Your task to perform on an android device: What is the news today? Image 0: 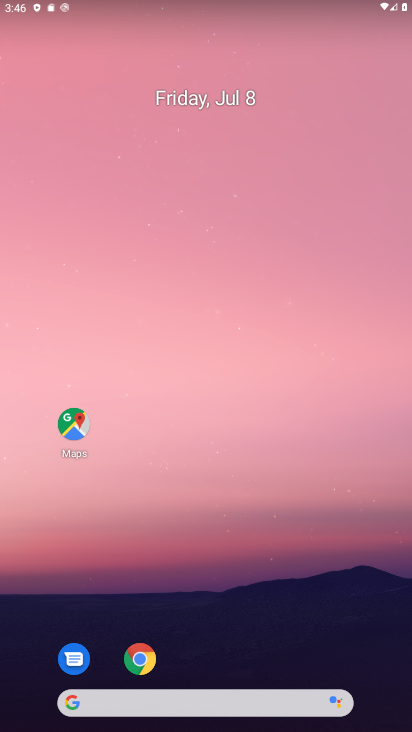
Step 0: click (139, 705)
Your task to perform on an android device: What is the news today? Image 1: 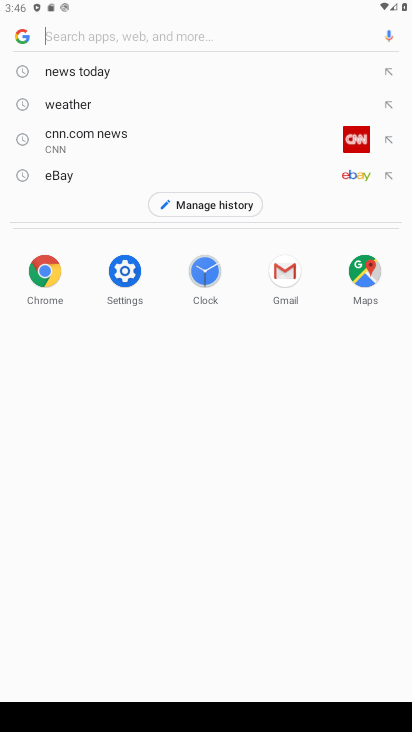
Step 1: click (117, 72)
Your task to perform on an android device: What is the news today? Image 2: 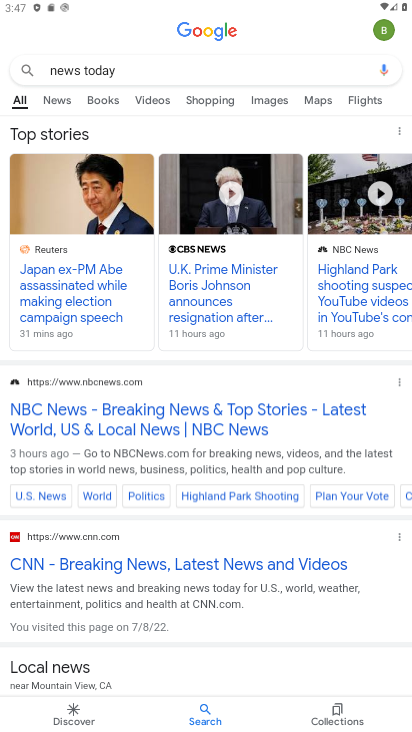
Step 2: task complete